Your task to perform on an android device: Go to sound settings Image 0: 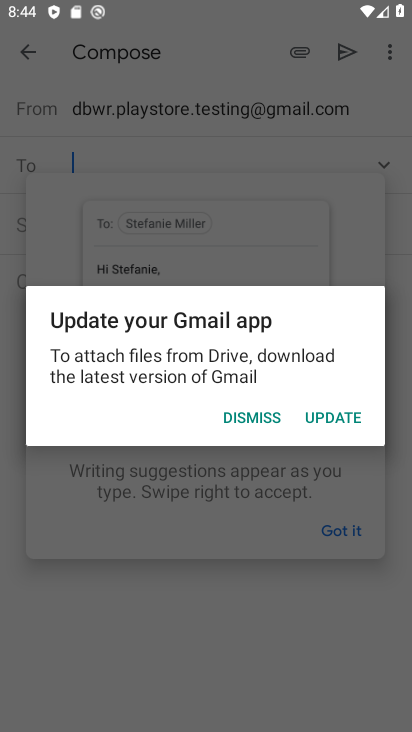
Step 0: press home button
Your task to perform on an android device: Go to sound settings Image 1: 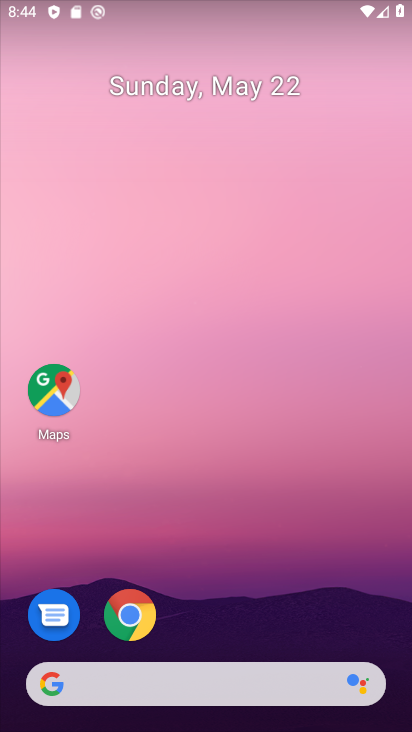
Step 1: drag from (246, 553) to (245, 234)
Your task to perform on an android device: Go to sound settings Image 2: 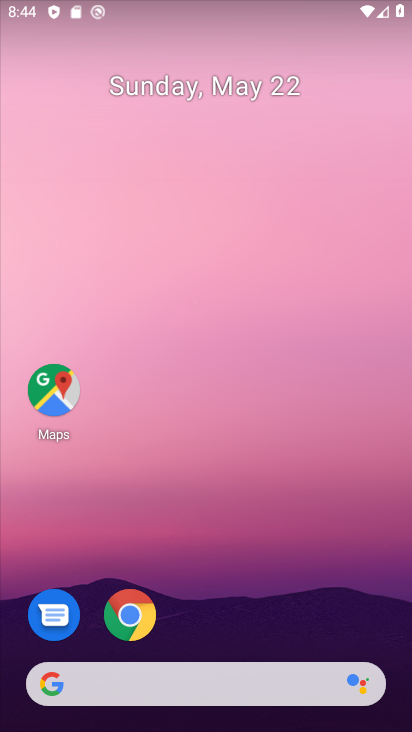
Step 2: drag from (272, 515) to (270, 239)
Your task to perform on an android device: Go to sound settings Image 3: 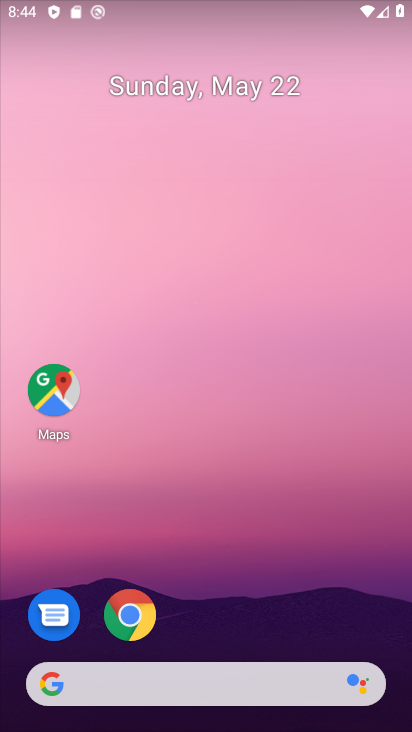
Step 3: drag from (246, 612) to (263, 174)
Your task to perform on an android device: Go to sound settings Image 4: 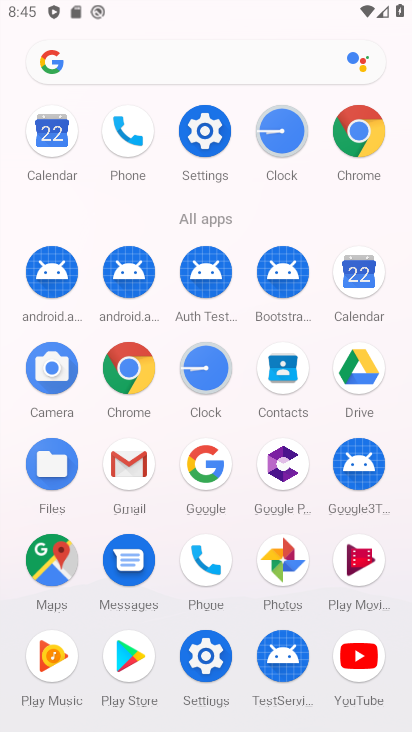
Step 4: click (217, 128)
Your task to perform on an android device: Go to sound settings Image 5: 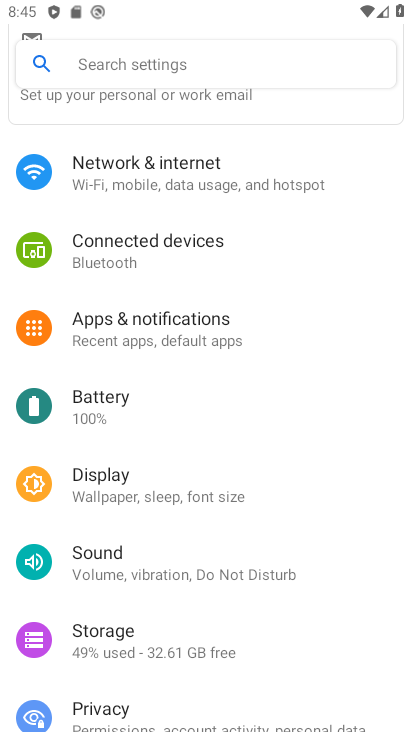
Step 5: click (168, 552)
Your task to perform on an android device: Go to sound settings Image 6: 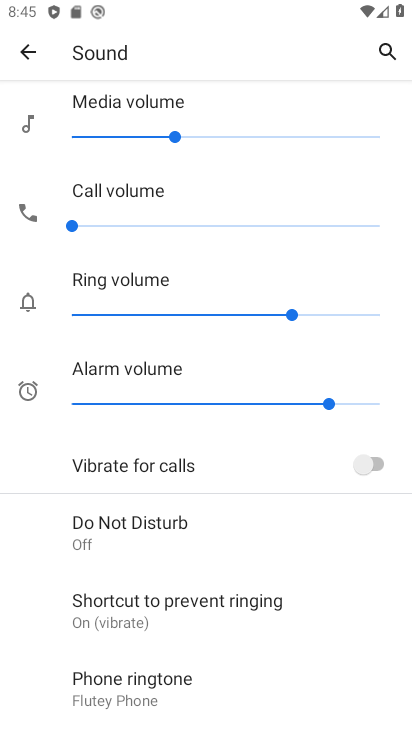
Step 6: task complete